Your task to perform on an android device: open app "Fetch Rewards" Image 0: 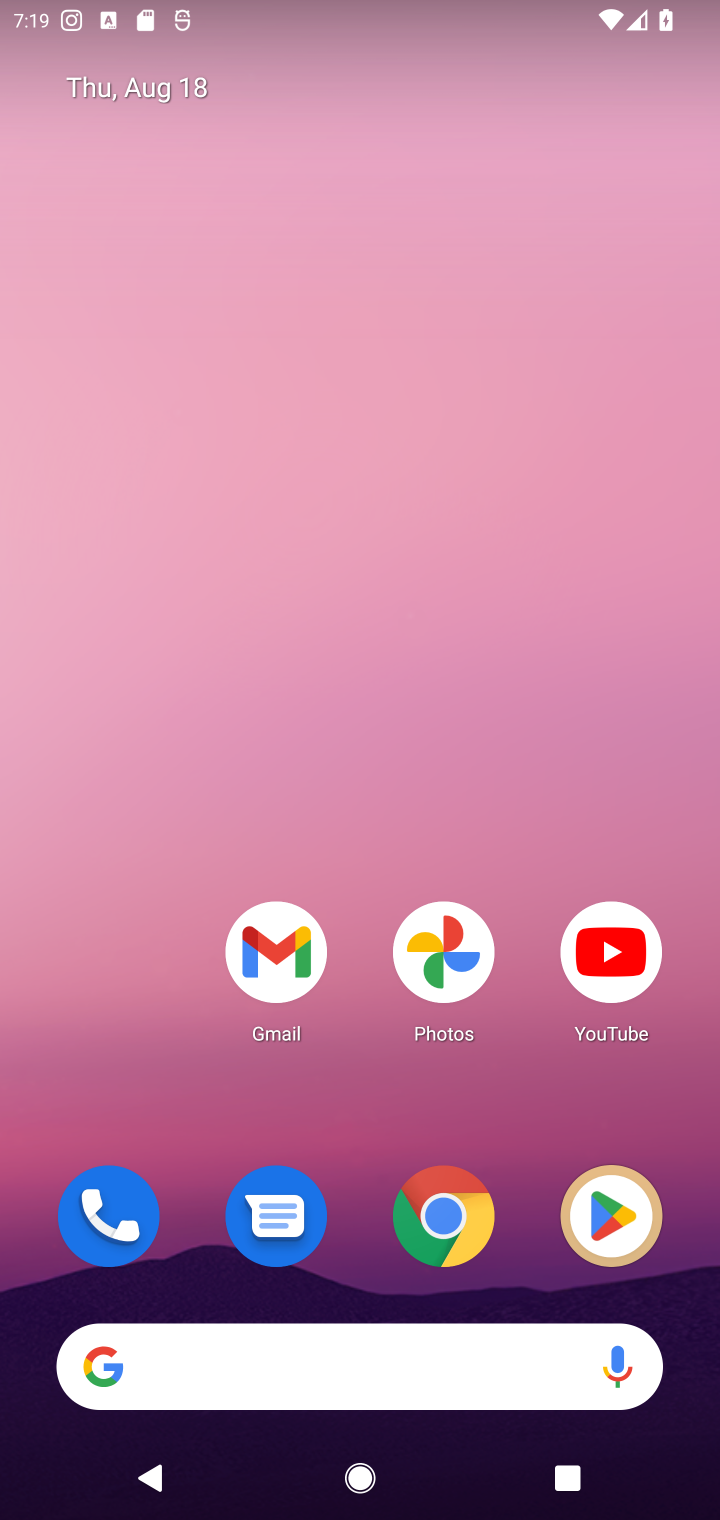
Step 0: click (618, 1214)
Your task to perform on an android device: open app "Fetch Rewards" Image 1: 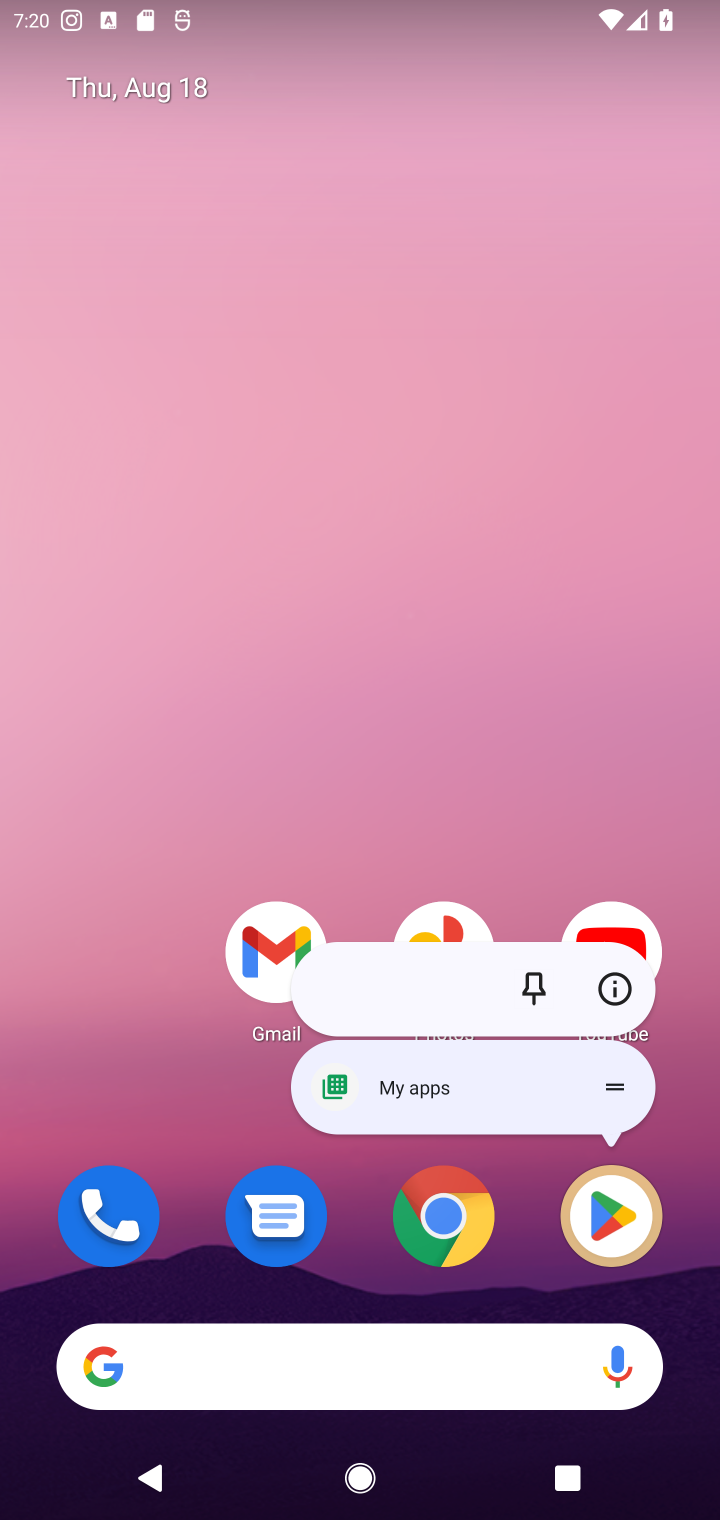
Step 1: click (618, 1214)
Your task to perform on an android device: open app "Fetch Rewards" Image 2: 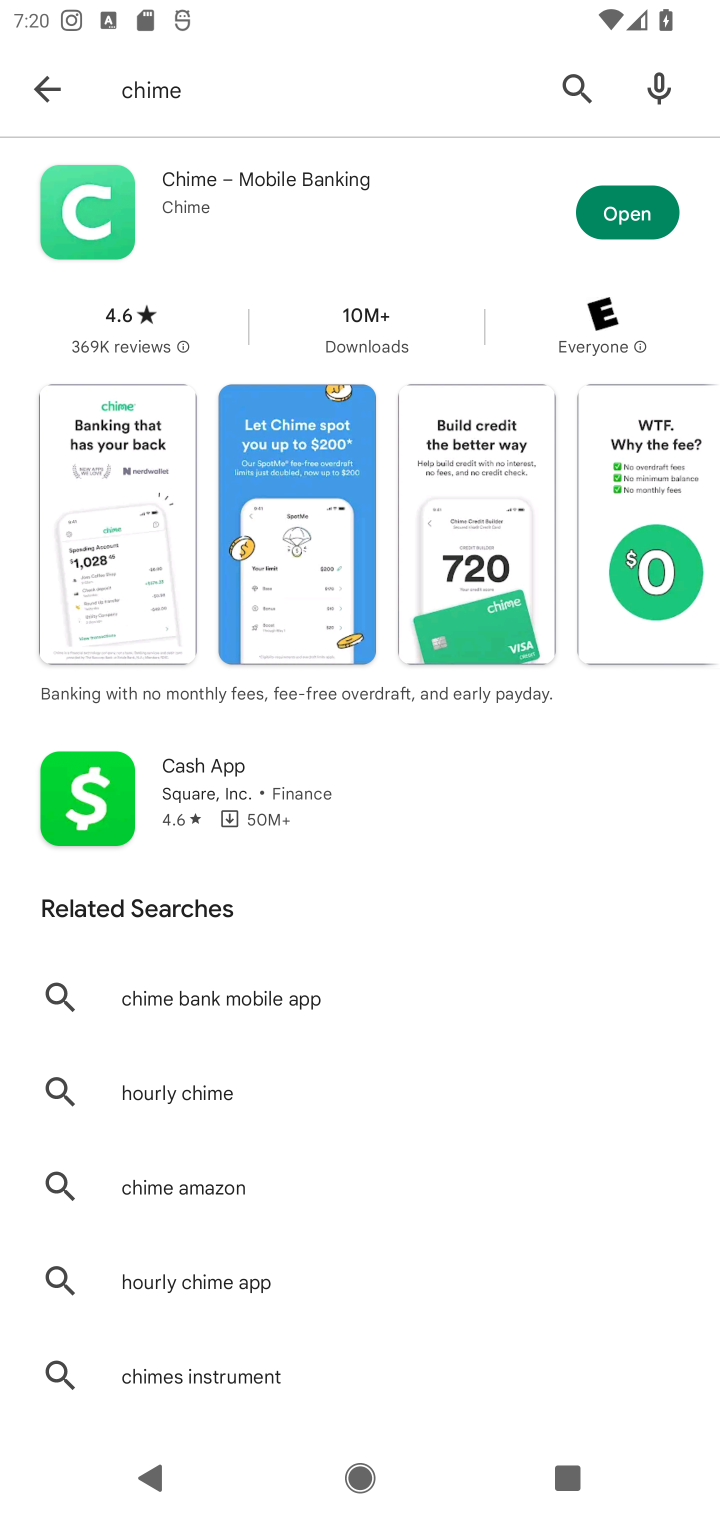
Step 2: click (581, 82)
Your task to perform on an android device: open app "Fetch Rewards" Image 3: 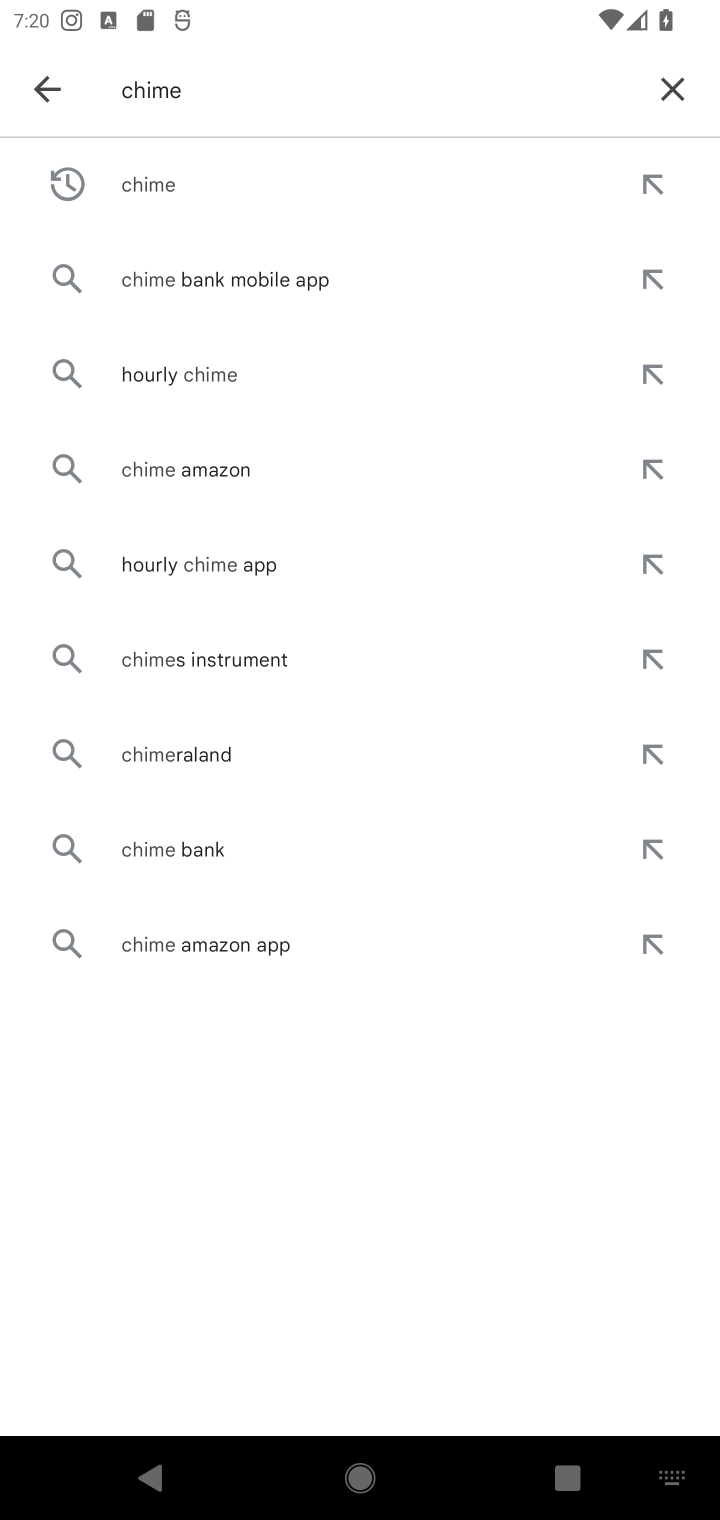
Step 3: click (666, 87)
Your task to perform on an android device: open app "Fetch Rewards" Image 4: 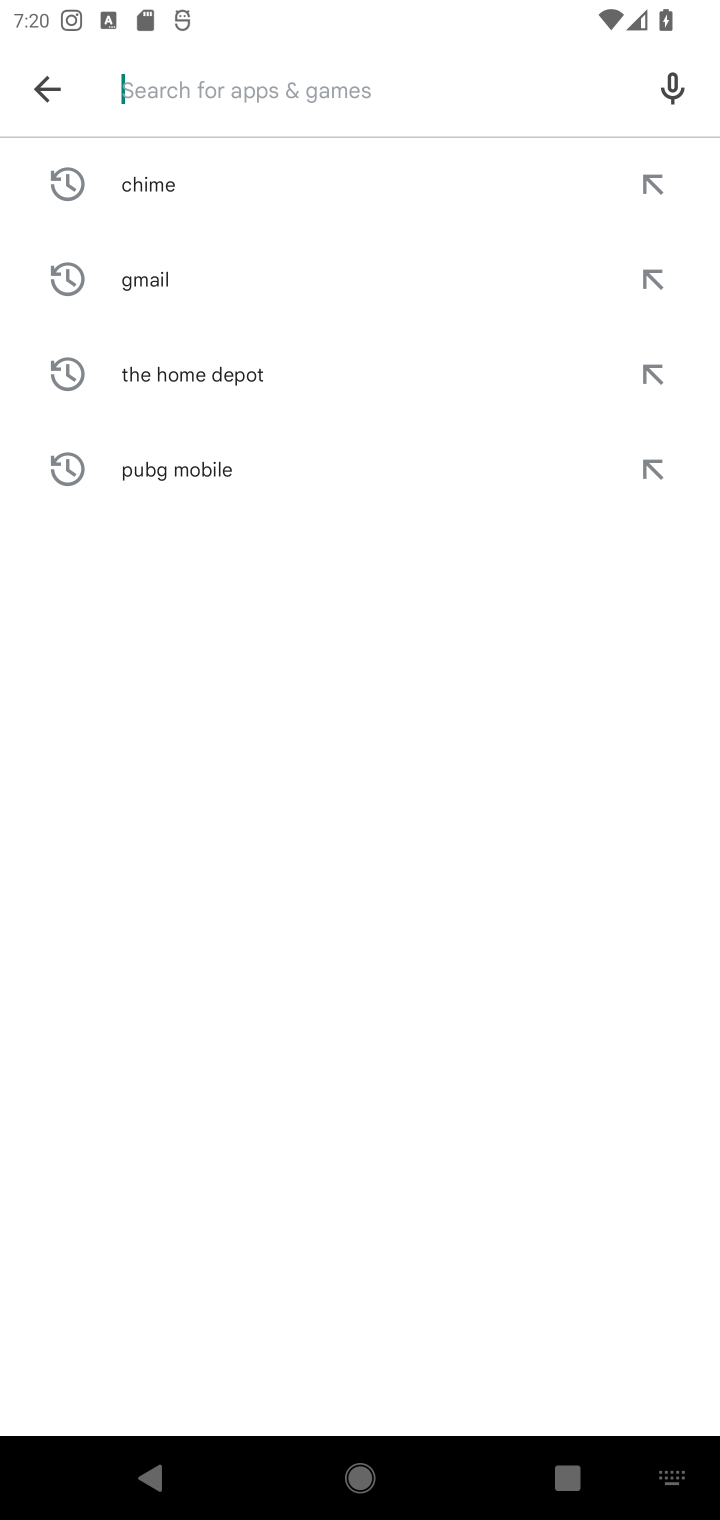
Step 4: type "Fetch Rewards"
Your task to perform on an android device: open app "Fetch Rewards" Image 5: 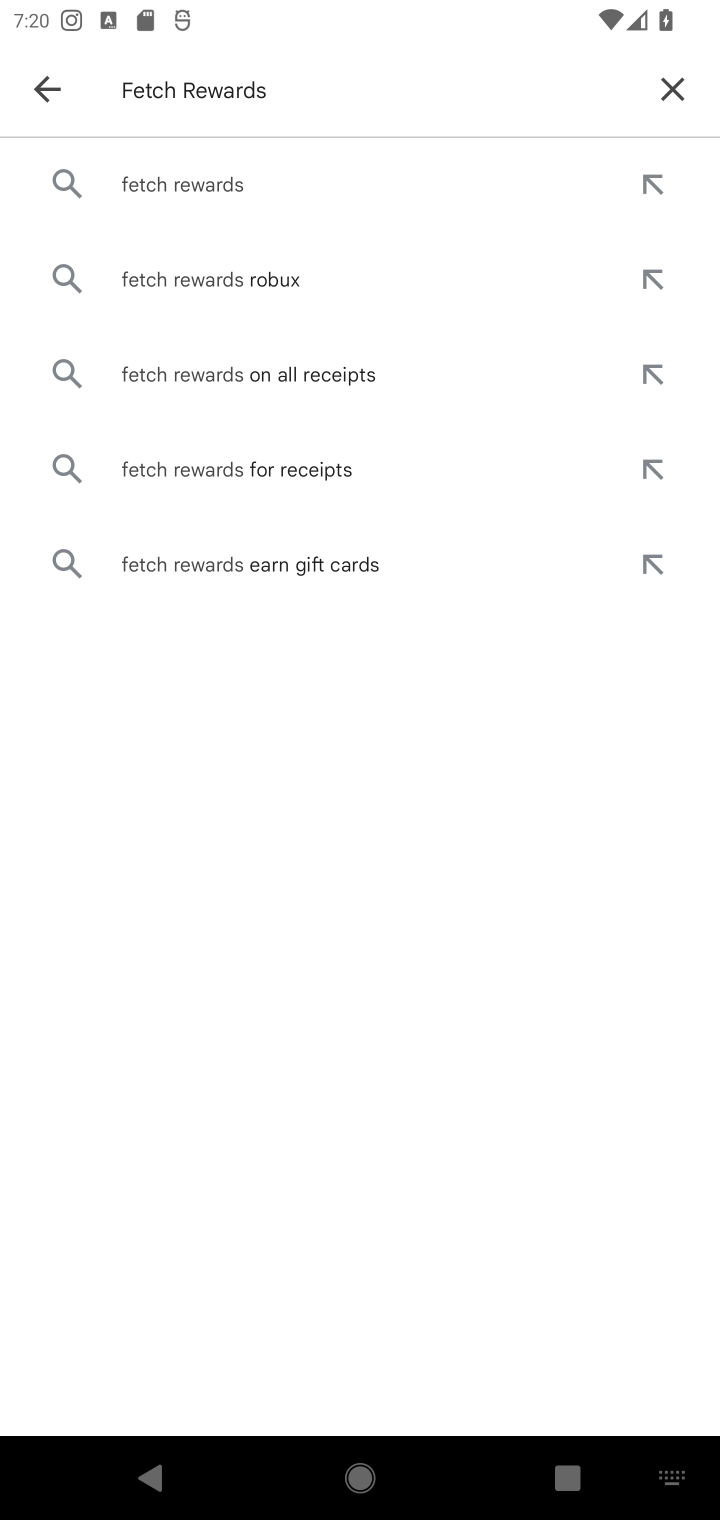
Step 5: click (248, 171)
Your task to perform on an android device: open app "Fetch Rewards" Image 6: 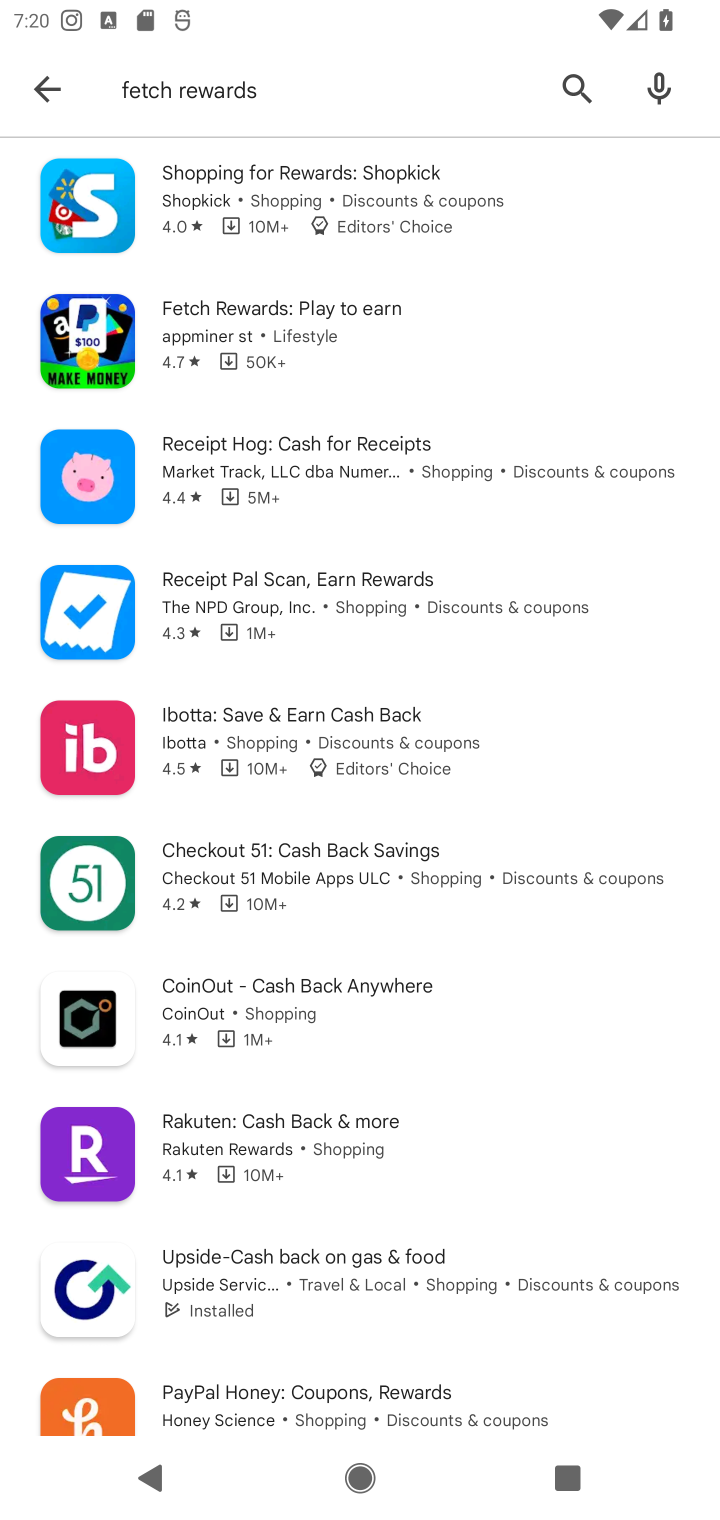
Step 6: task complete